Your task to perform on an android device: Turn on the flashlight Image 0: 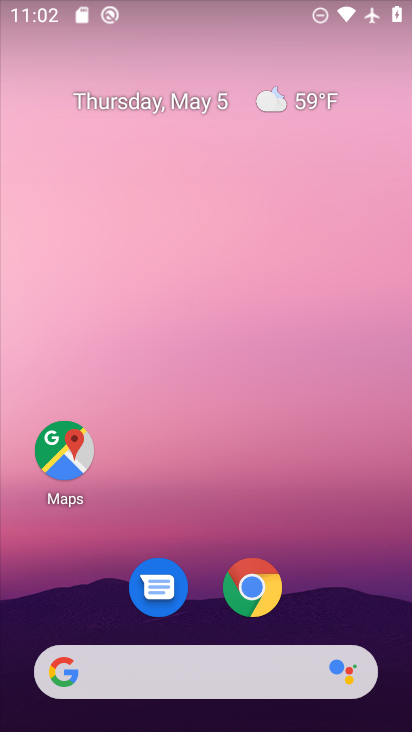
Step 0: drag from (376, 674) to (283, 39)
Your task to perform on an android device: Turn on the flashlight Image 1: 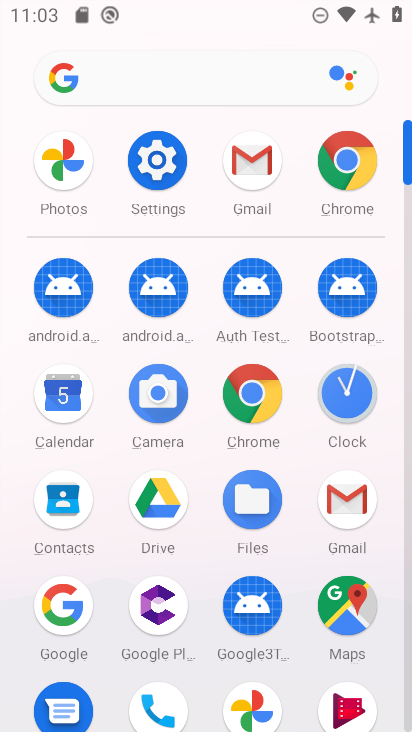
Step 1: drag from (9, 658) to (23, 297)
Your task to perform on an android device: Turn on the flashlight Image 2: 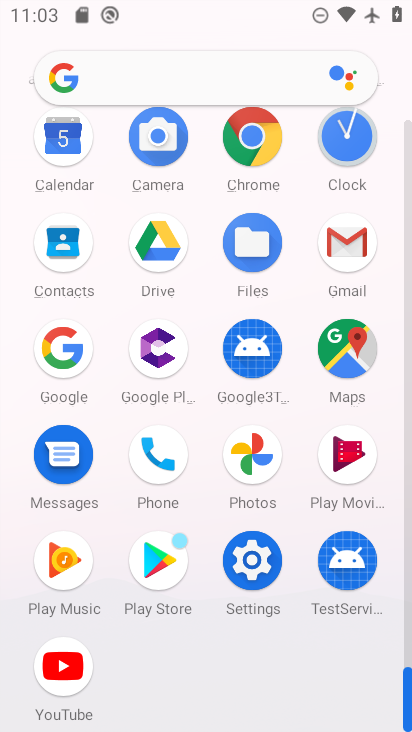
Step 2: drag from (12, 511) to (30, 244)
Your task to perform on an android device: Turn on the flashlight Image 3: 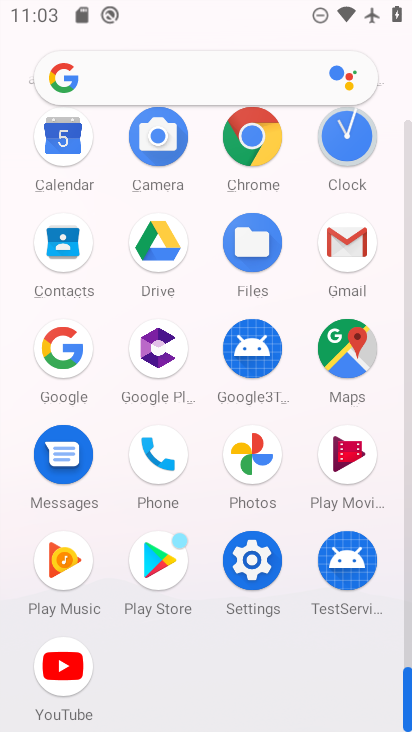
Step 3: drag from (15, 286) to (6, 527)
Your task to perform on an android device: Turn on the flashlight Image 4: 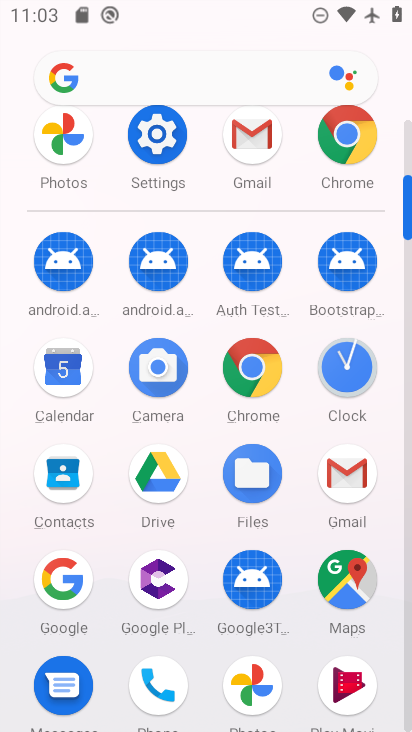
Step 4: drag from (9, 513) to (30, 328)
Your task to perform on an android device: Turn on the flashlight Image 5: 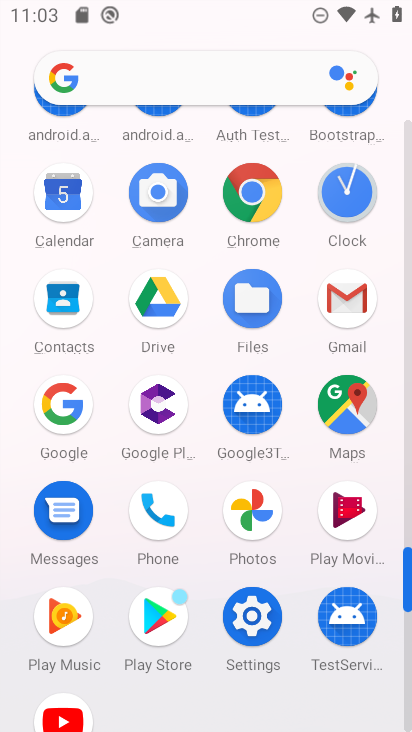
Step 5: click (255, 608)
Your task to perform on an android device: Turn on the flashlight Image 6: 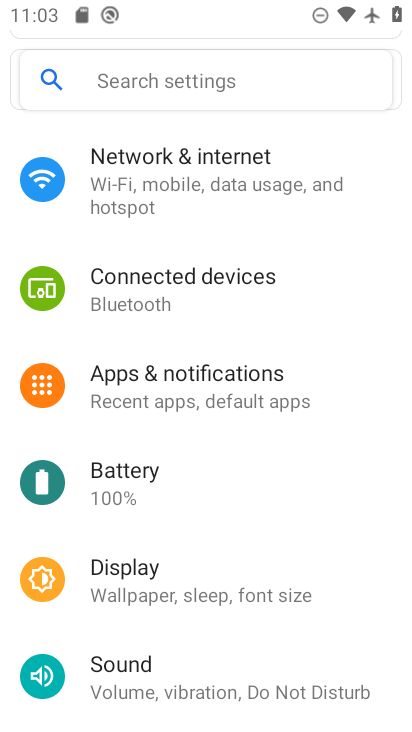
Step 6: drag from (262, 166) to (309, 476)
Your task to perform on an android device: Turn on the flashlight Image 7: 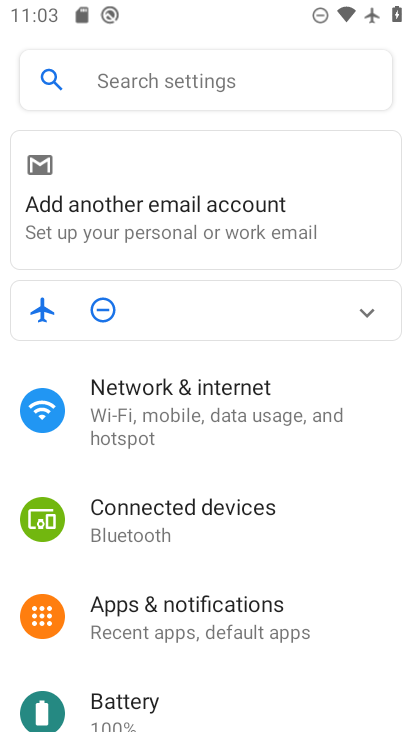
Step 7: drag from (280, 584) to (260, 250)
Your task to perform on an android device: Turn on the flashlight Image 8: 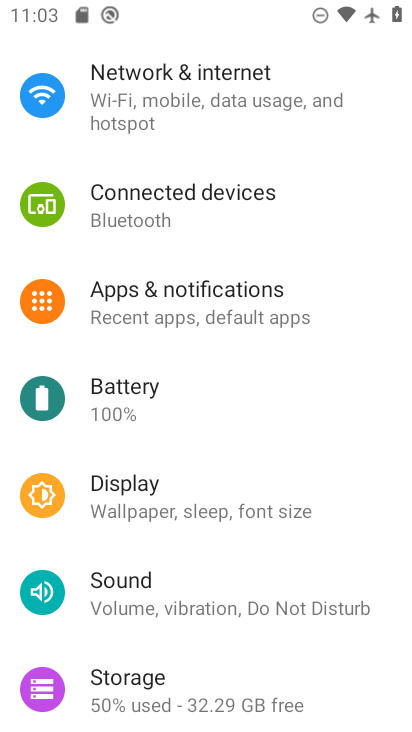
Step 8: drag from (279, 120) to (295, 382)
Your task to perform on an android device: Turn on the flashlight Image 9: 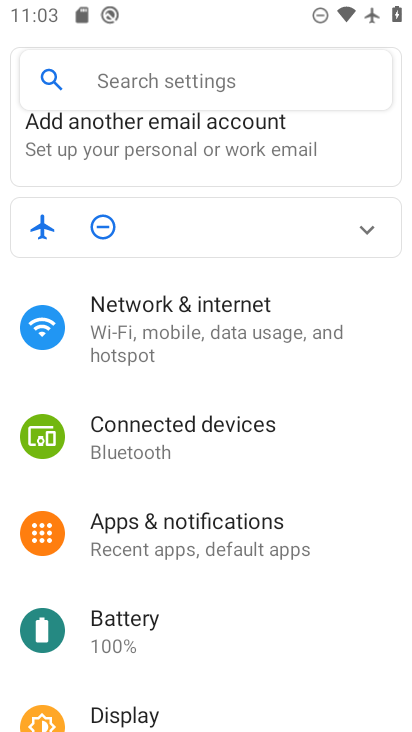
Step 9: click (267, 319)
Your task to perform on an android device: Turn on the flashlight Image 10: 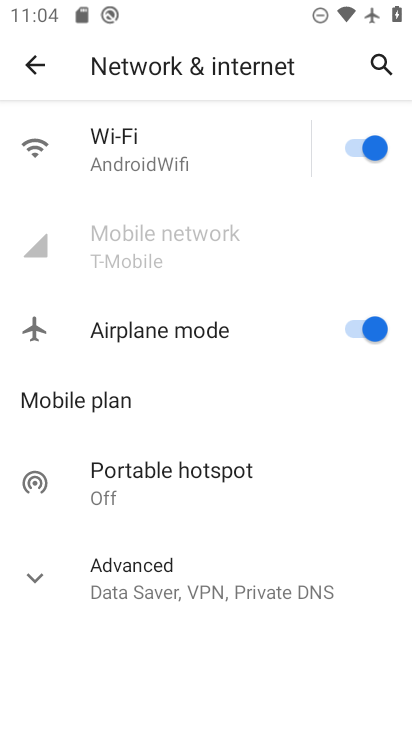
Step 10: click (86, 568)
Your task to perform on an android device: Turn on the flashlight Image 11: 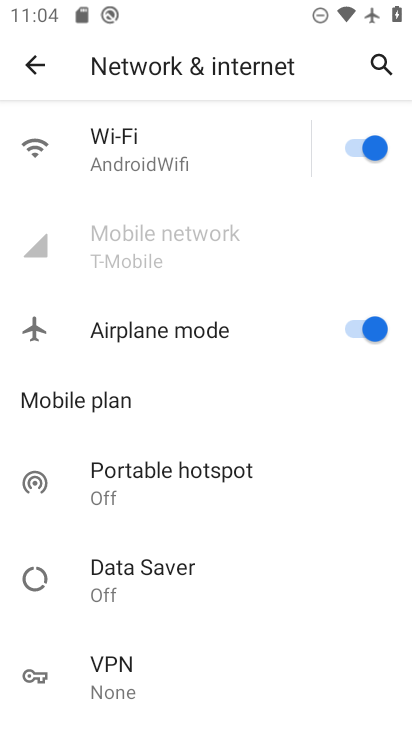
Step 11: drag from (207, 649) to (237, 172)
Your task to perform on an android device: Turn on the flashlight Image 12: 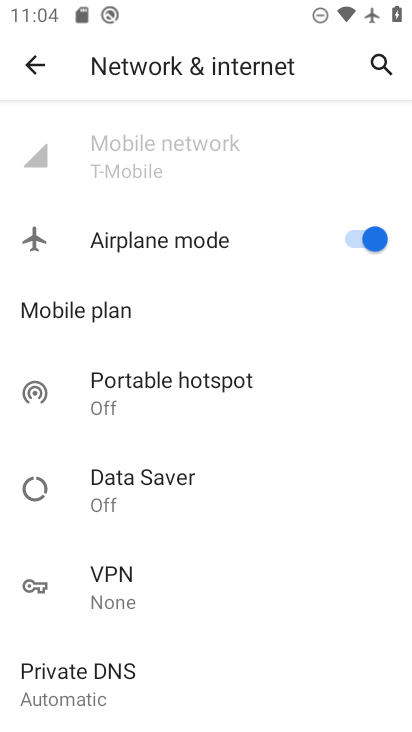
Step 12: click (40, 64)
Your task to perform on an android device: Turn on the flashlight Image 13: 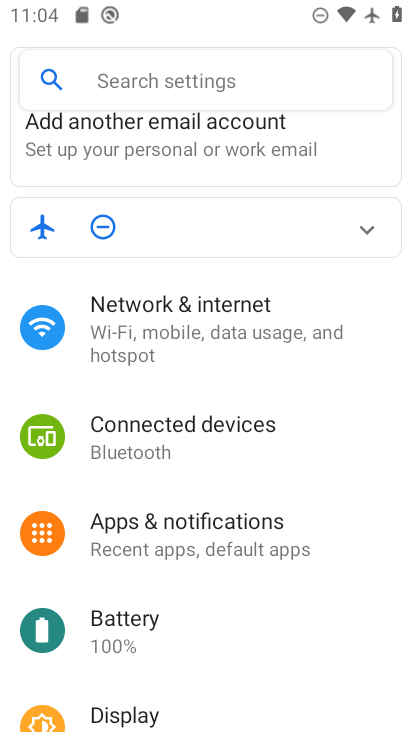
Step 13: task complete